Your task to perform on an android device: What's the weather? Image 0: 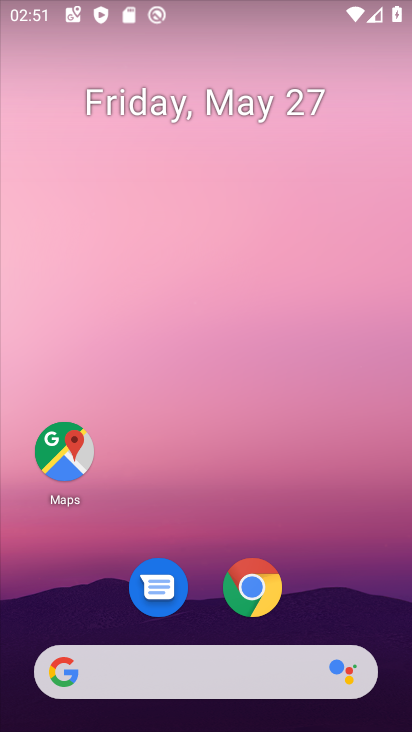
Step 0: press home button
Your task to perform on an android device: What's the weather? Image 1: 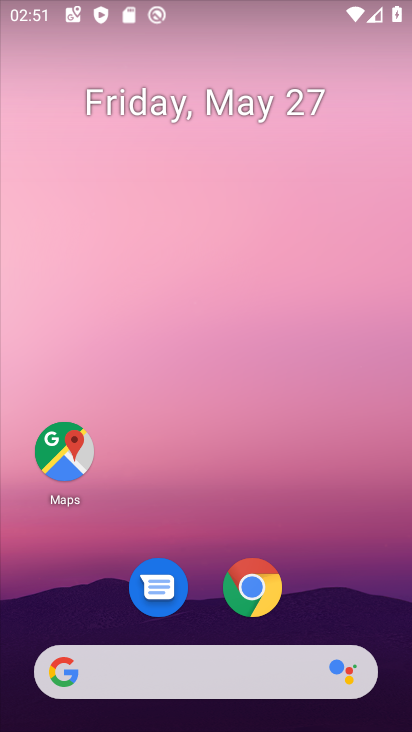
Step 1: click (81, 683)
Your task to perform on an android device: What's the weather? Image 2: 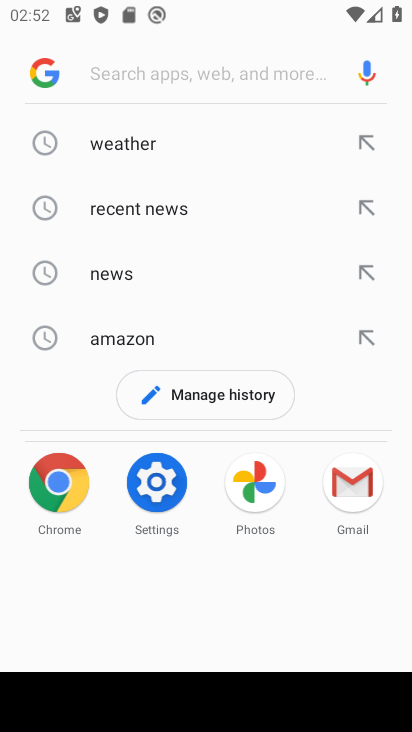
Step 2: click (134, 151)
Your task to perform on an android device: What's the weather? Image 3: 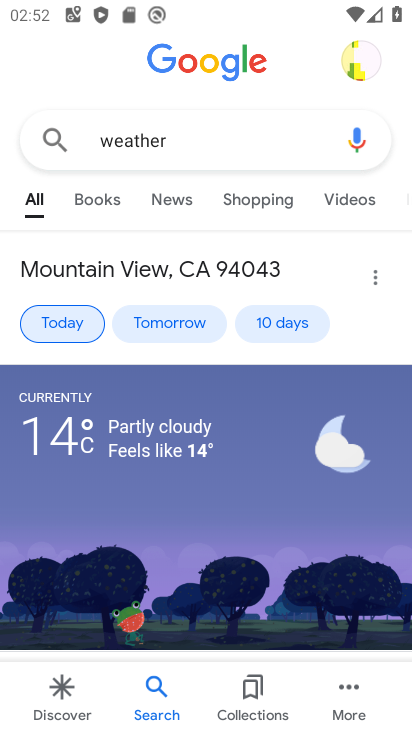
Step 3: task complete